Your task to perform on an android device: Clear all items from cart on ebay.com. Add energizer triple a to the cart on ebay.com, then select checkout. Image 0: 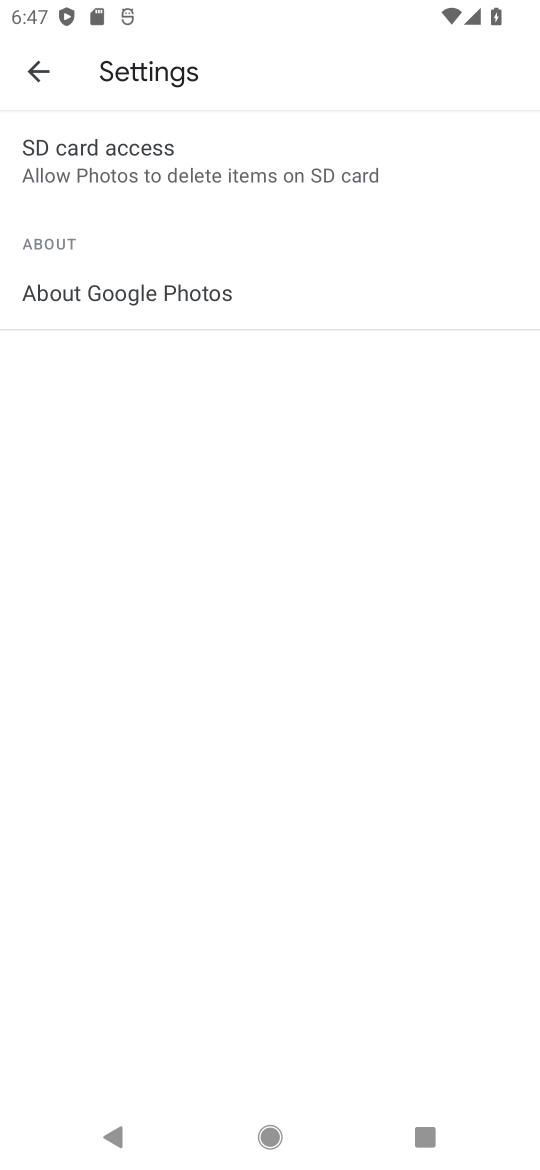
Step 0: press home button
Your task to perform on an android device: Clear all items from cart on ebay.com. Add energizer triple a to the cart on ebay.com, then select checkout. Image 1: 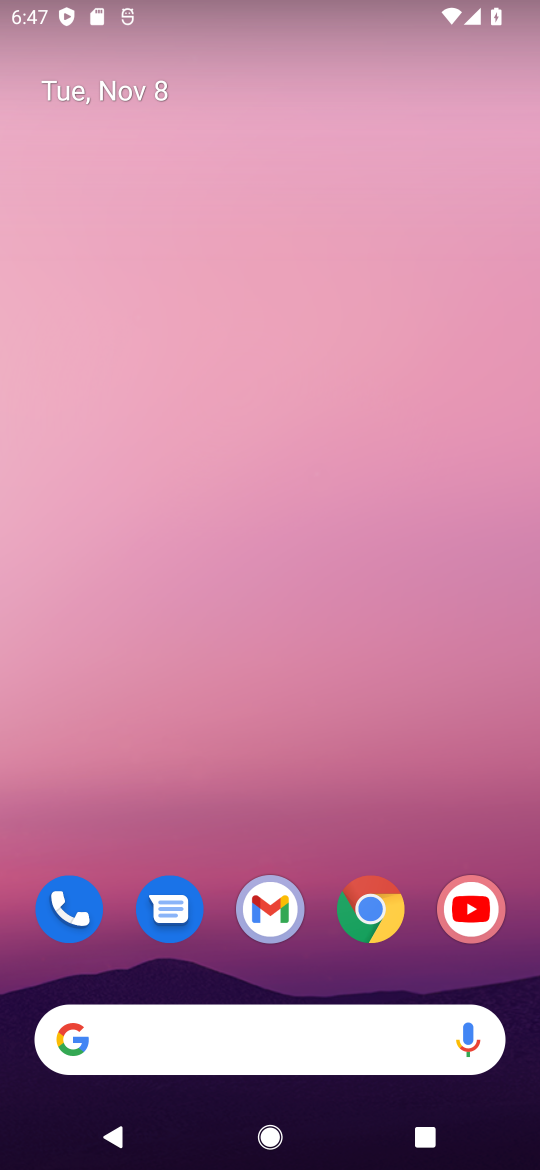
Step 1: click (364, 910)
Your task to perform on an android device: Clear all items from cart on ebay.com. Add energizer triple a to the cart on ebay.com, then select checkout. Image 2: 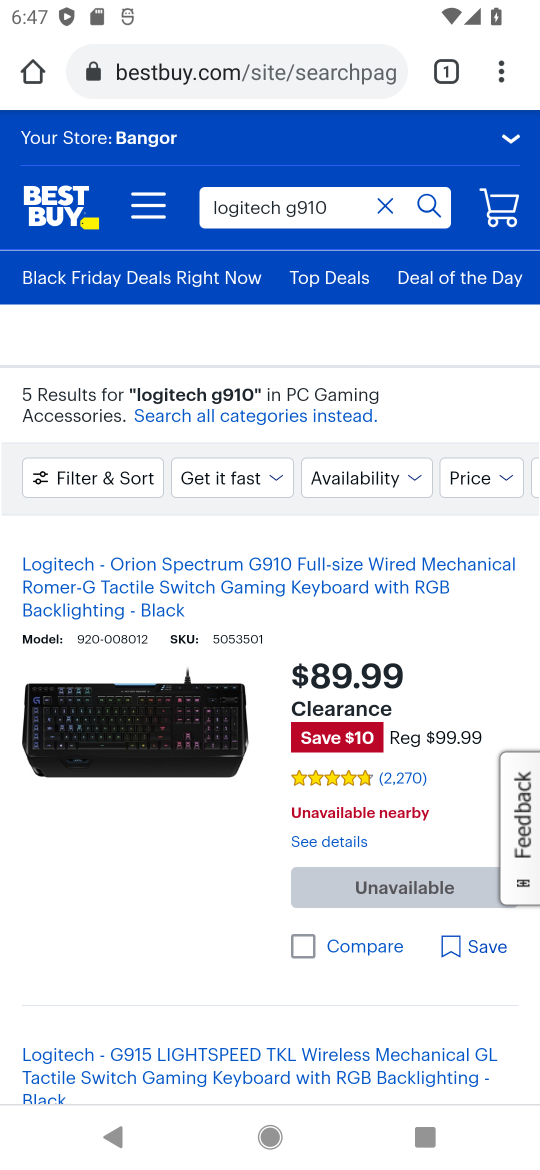
Step 2: click (311, 72)
Your task to perform on an android device: Clear all items from cart on ebay.com. Add energizer triple a to the cart on ebay.com, then select checkout. Image 3: 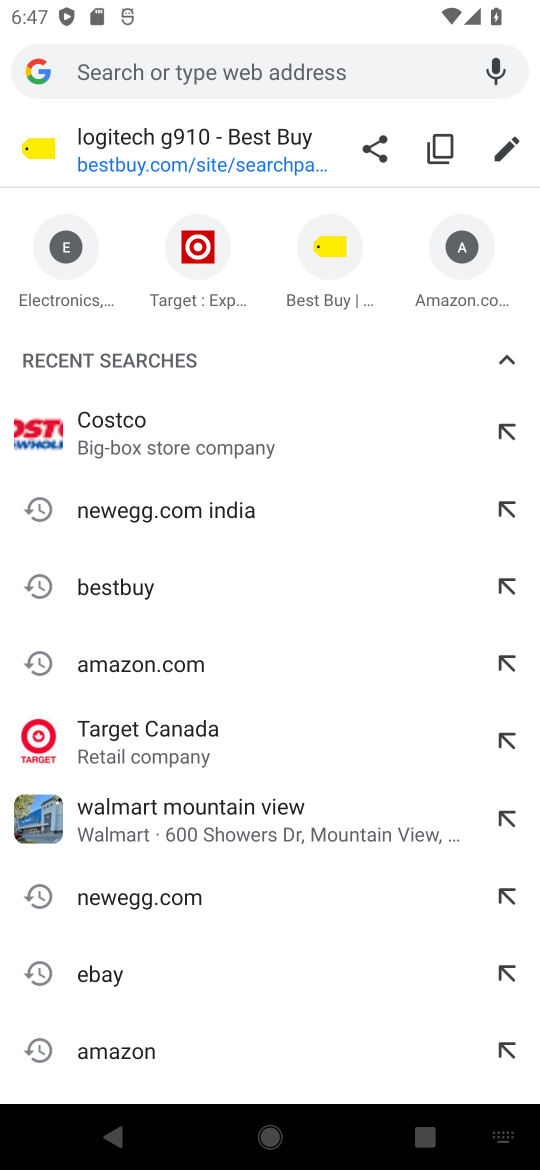
Step 3: click (40, 298)
Your task to perform on an android device: Clear all items from cart on ebay.com. Add energizer triple a to the cart on ebay.com, then select checkout. Image 4: 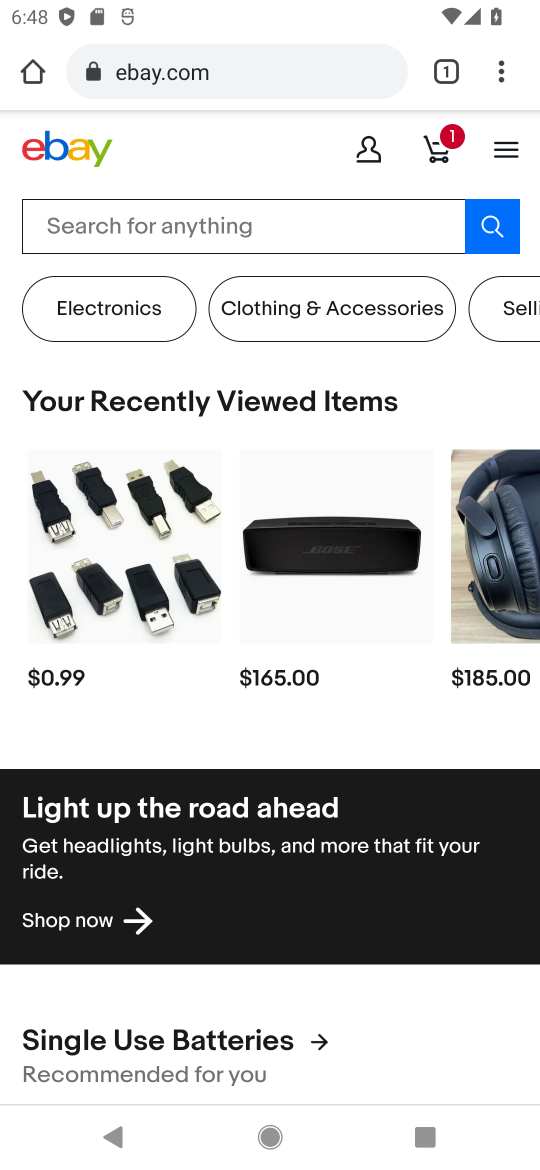
Step 4: click (442, 142)
Your task to perform on an android device: Clear all items from cart on ebay.com. Add energizer triple a to the cart on ebay.com, then select checkout. Image 5: 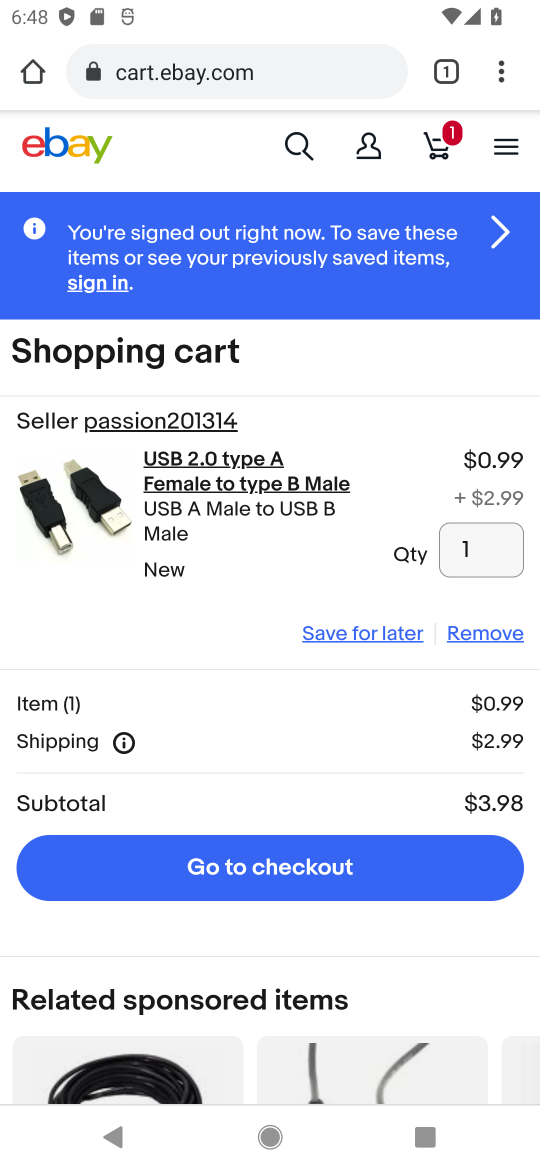
Step 5: click (476, 633)
Your task to perform on an android device: Clear all items from cart on ebay.com. Add energizer triple a to the cart on ebay.com, then select checkout. Image 6: 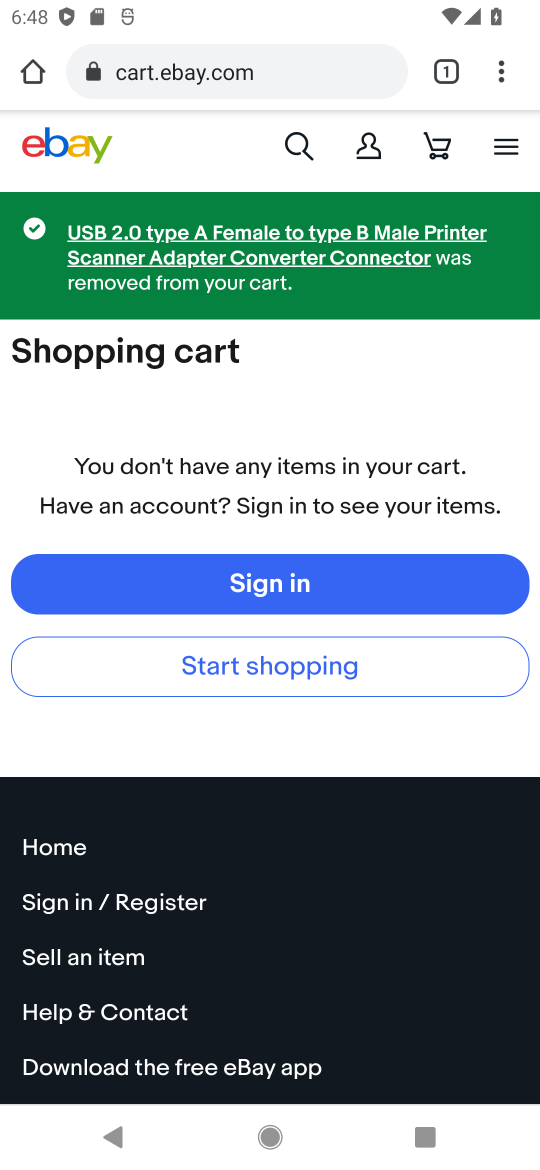
Step 6: click (296, 134)
Your task to perform on an android device: Clear all items from cart on ebay.com. Add energizer triple a to the cart on ebay.com, then select checkout. Image 7: 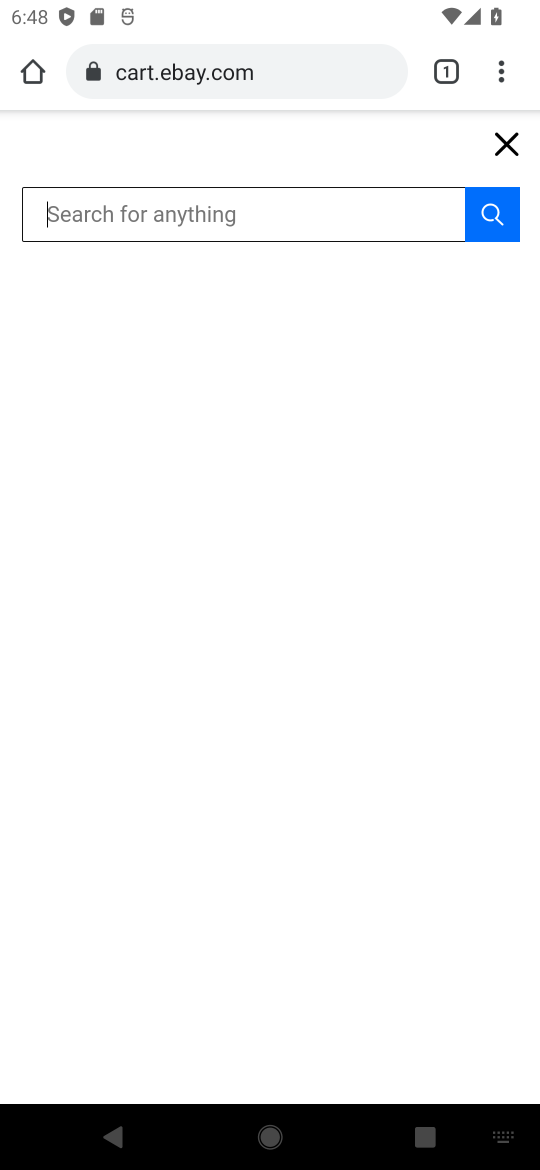
Step 7: click (219, 219)
Your task to perform on an android device: Clear all items from cart on ebay.com. Add energizer triple a to the cart on ebay.com, then select checkout. Image 8: 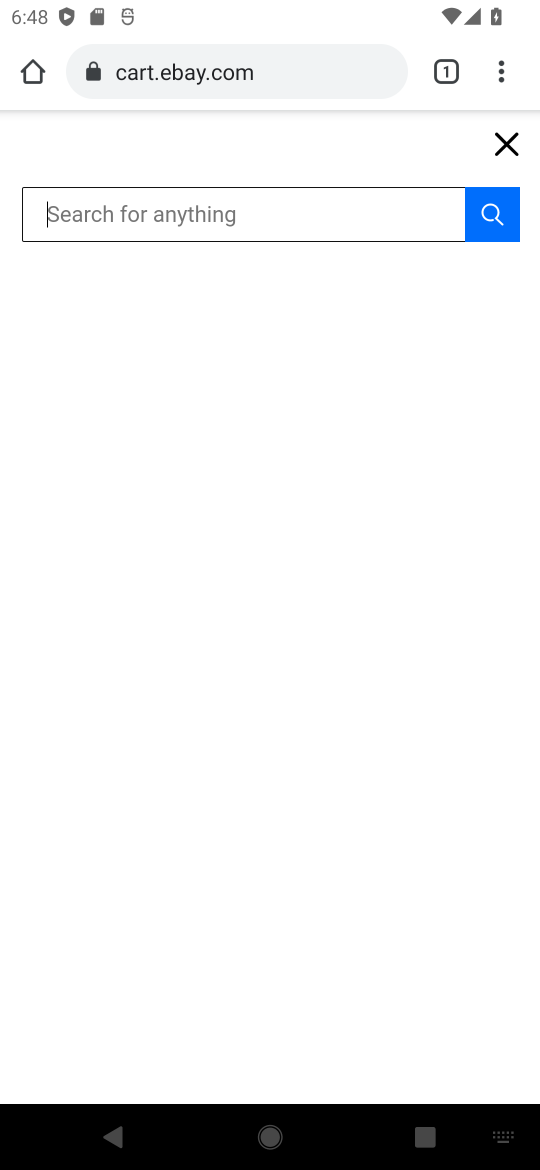
Step 8: type "energizer triple a"
Your task to perform on an android device: Clear all items from cart on ebay.com. Add energizer triple a to the cart on ebay.com, then select checkout. Image 9: 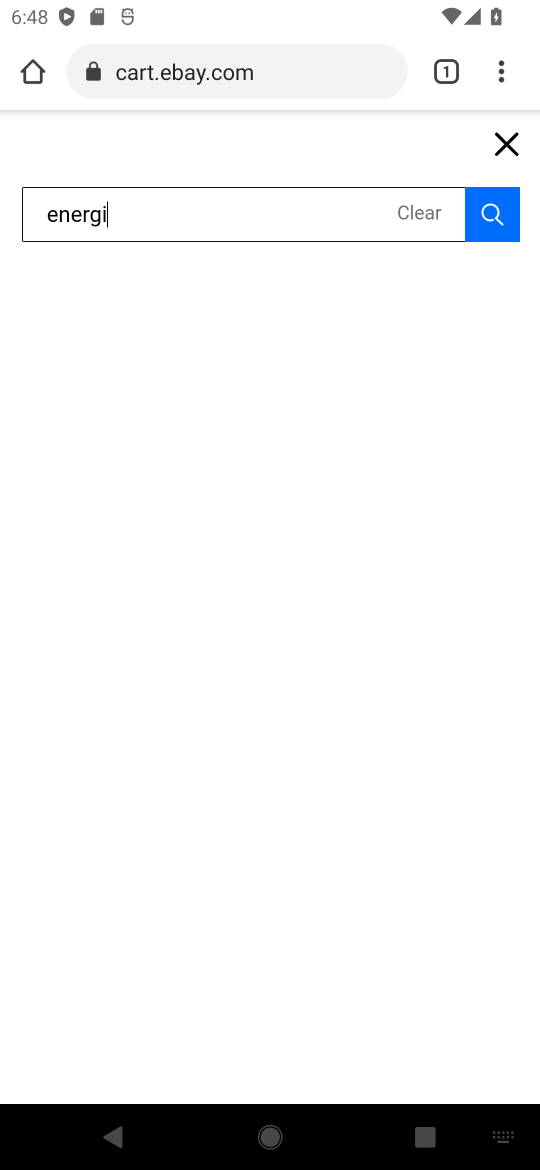
Step 9: press enter
Your task to perform on an android device: Clear all items from cart on ebay.com. Add energizer triple a to the cart on ebay.com, then select checkout. Image 10: 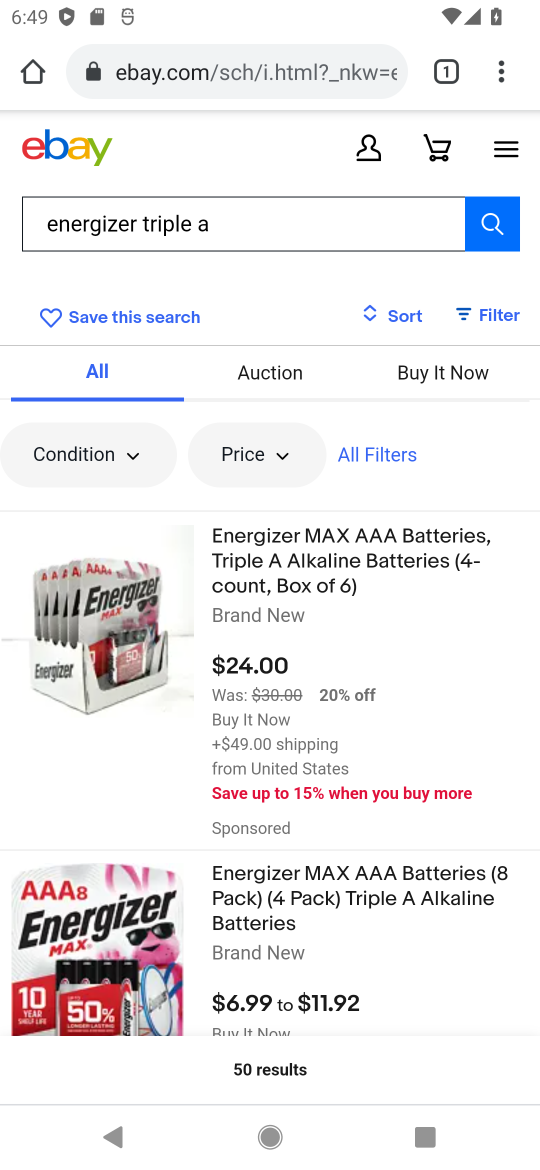
Step 10: drag from (359, 1002) to (403, 657)
Your task to perform on an android device: Clear all items from cart on ebay.com. Add energizer triple a to the cart on ebay.com, then select checkout. Image 11: 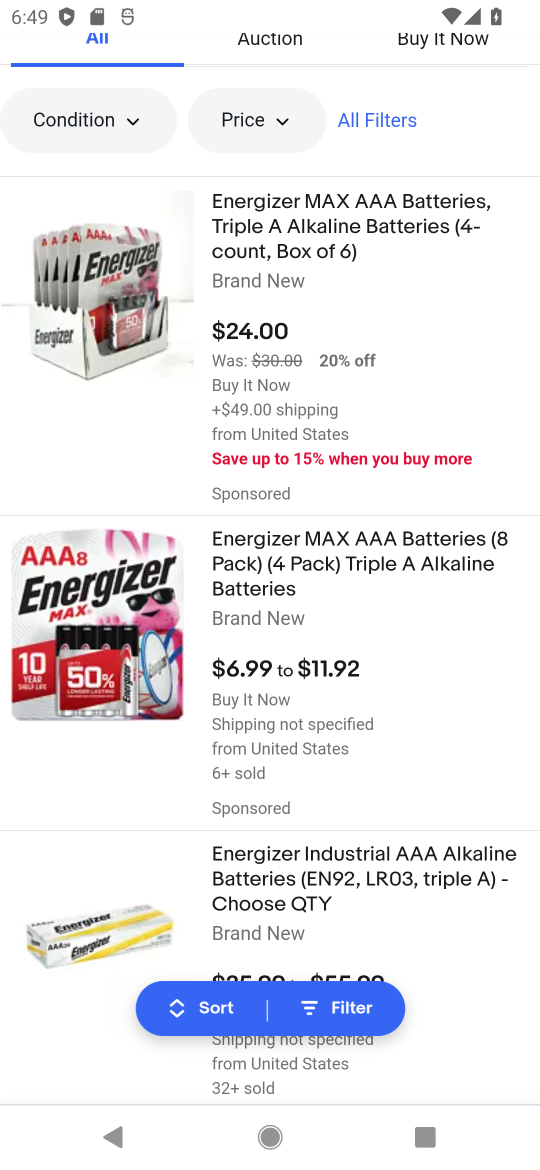
Step 11: drag from (405, 842) to (420, 504)
Your task to perform on an android device: Clear all items from cart on ebay.com. Add energizer triple a to the cart on ebay.com, then select checkout. Image 12: 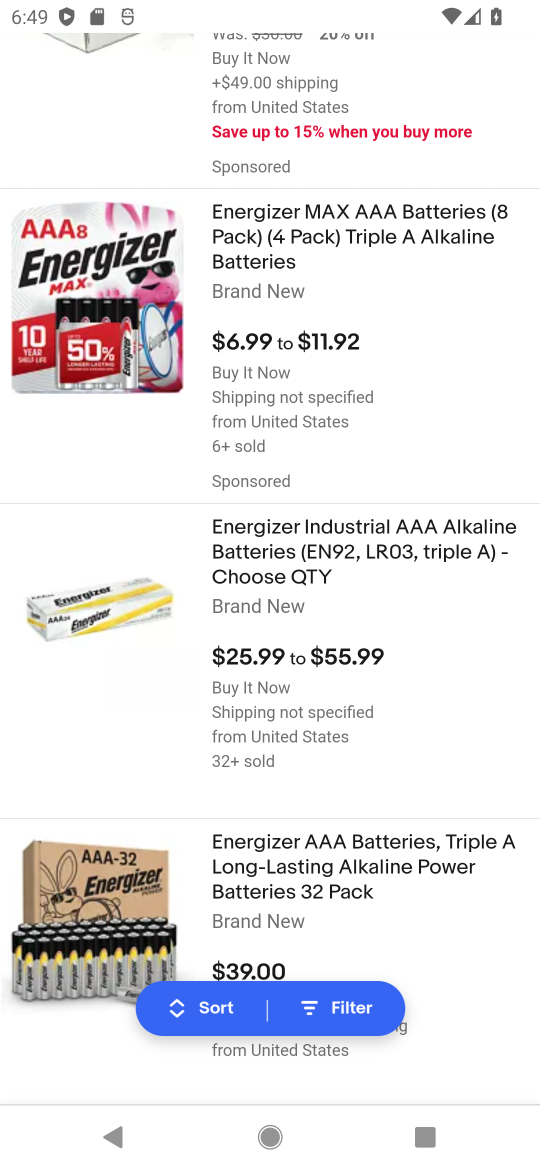
Step 12: click (341, 849)
Your task to perform on an android device: Clear all items from cart on ebay.com. Add energizer triple a to the cart on ebay.com, then select checkout. Image 13: 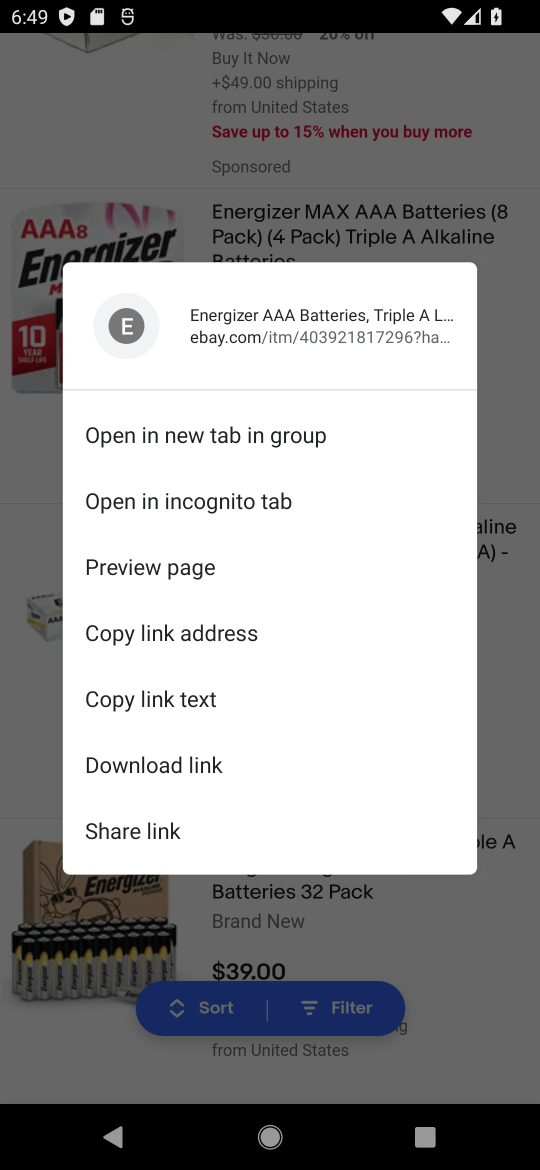
Step 13: click (401, 909)
Your task to perform on an android device: Clear all items from cart on ebay.com. Add energizer triple a to the cart on ebay.com, then select checkout. Image 14: 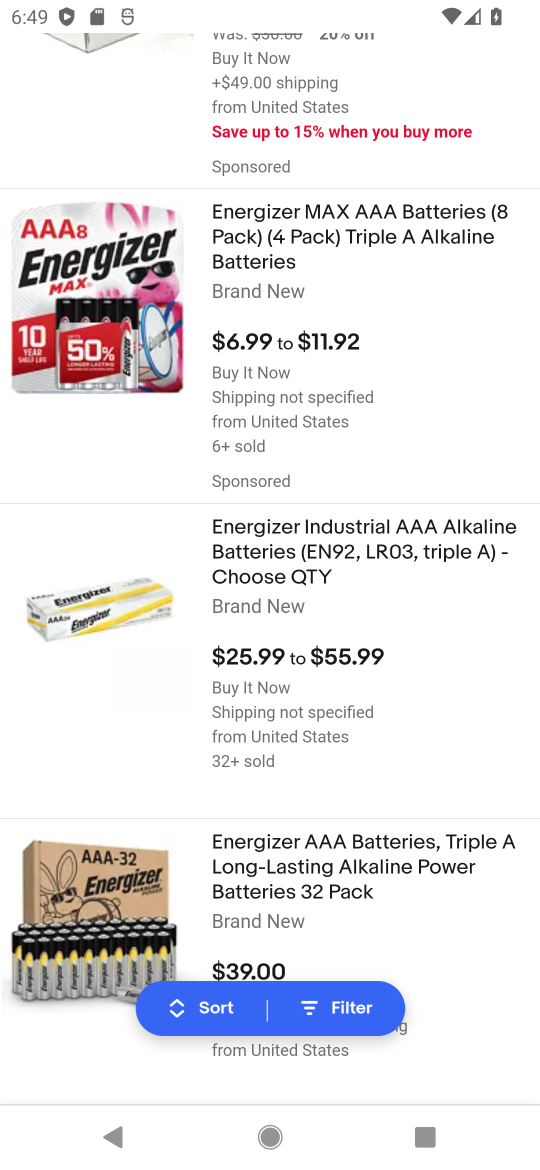
Step 14: click (355, 867)
Your task to perform on an android device: Clear all items from cart on ebay.com. Add energizer triple a to the cart on ebay.com, then select checkout. Image 15: 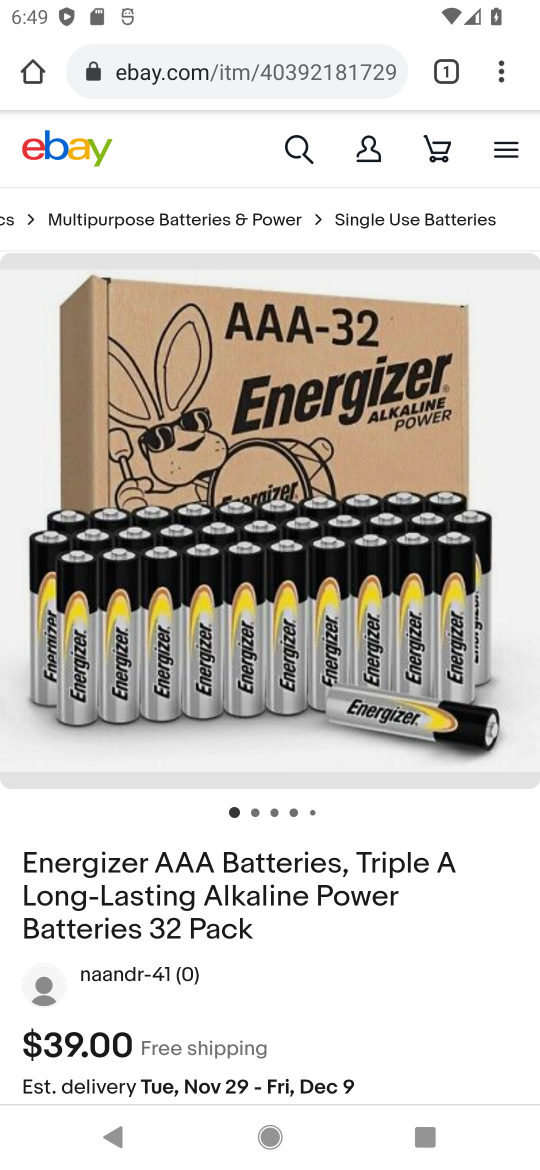
Step 15: drag from (239, 900) to (480, 9)
Your task to perform on an android device: Clear all items from cart on ebay.com. Add energizer triple a to the cart on ebay.com, then select checkout. Image 16: 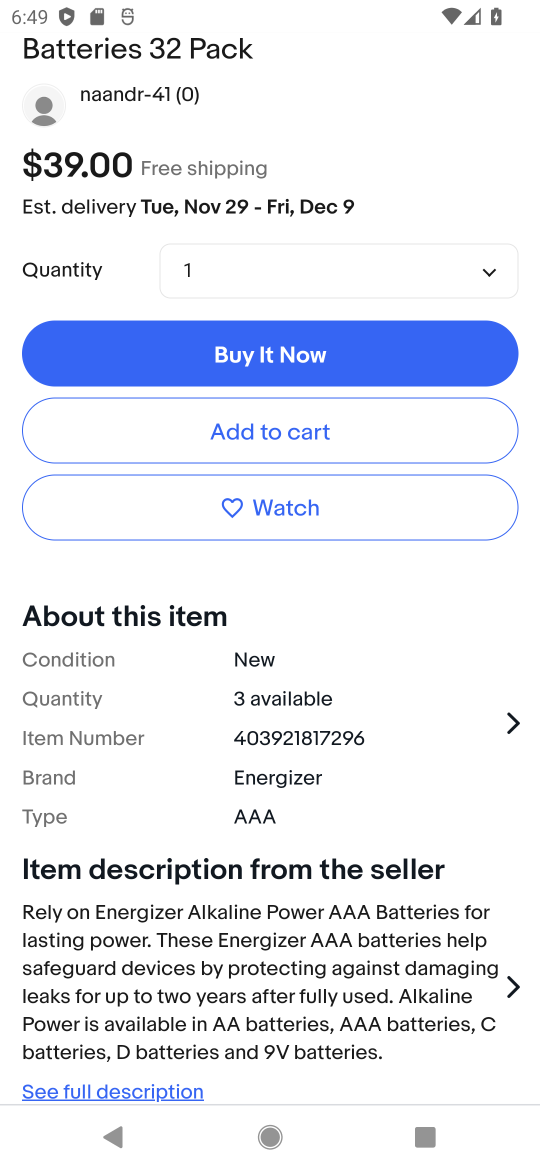
Step 16: click (289, 428)
Your task to perform on an android device: Clear all items from cart on ebay.com. Add energizer triple a to the cart on ebay.com, then select checkout. Image 17: 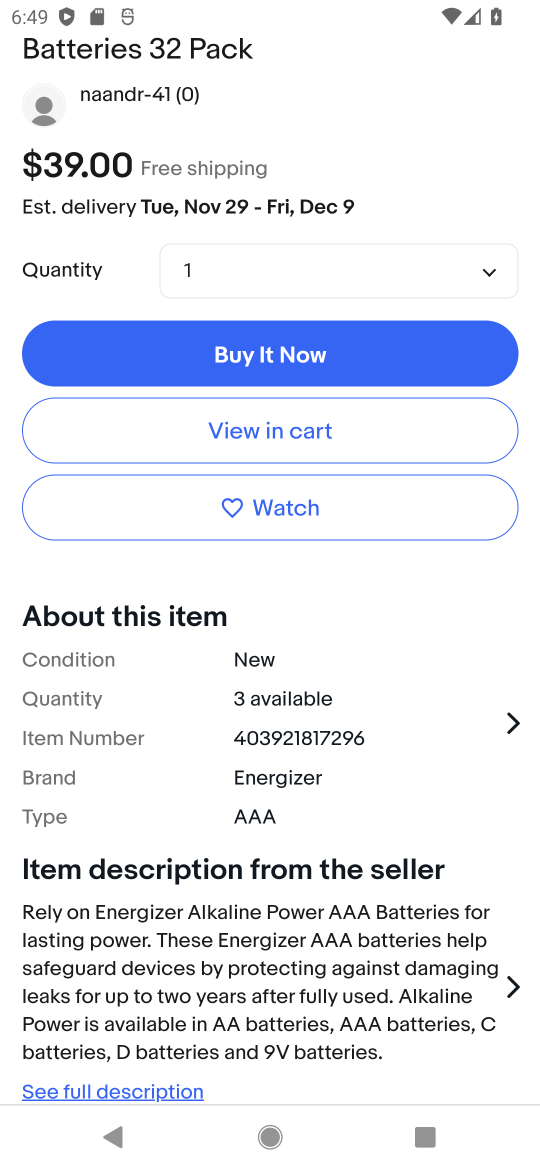
Step 17: click (269, 431)
Your task to perform on an android device: Clear all items from cart on ebay.com. Add energizer triple a to the cart on ebay.com, then select checkout. Image 18: 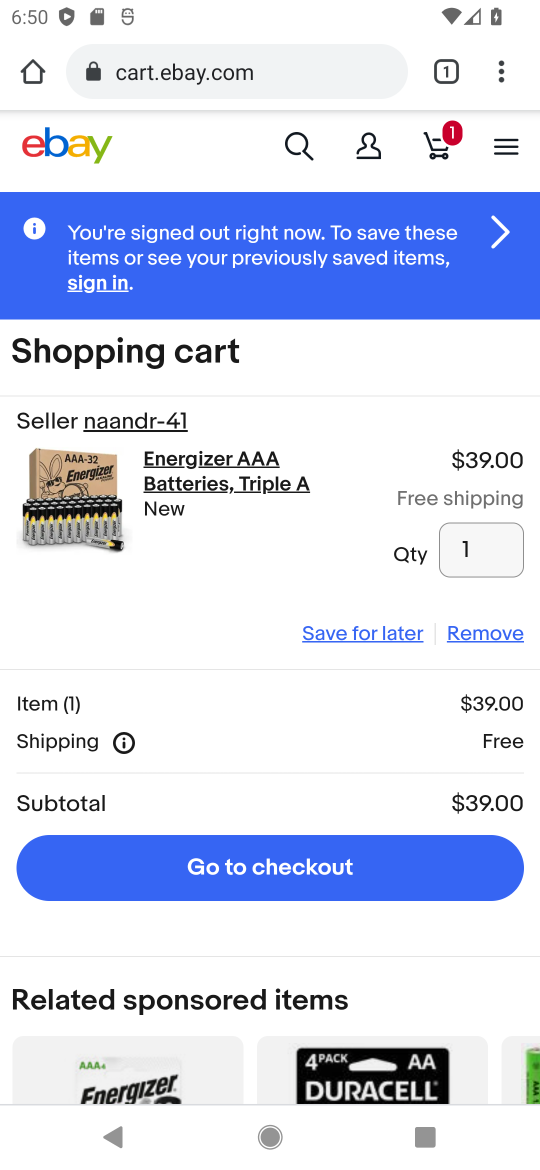
Step 18: click (297, 861)
Your task to perform on an android device: Clear all items from cart on ebay.com. Add energizer triple a to the cart on ebay.com, then select checkout. Image 19: 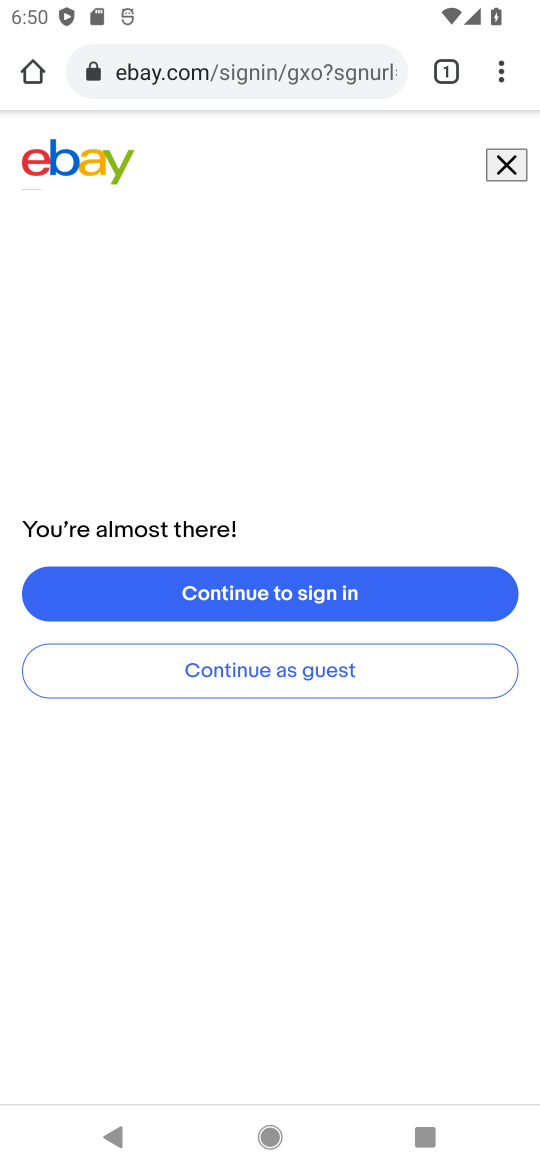
Step 19: task complete